Your task to perform on an android device: Go to notification settings Image 0: 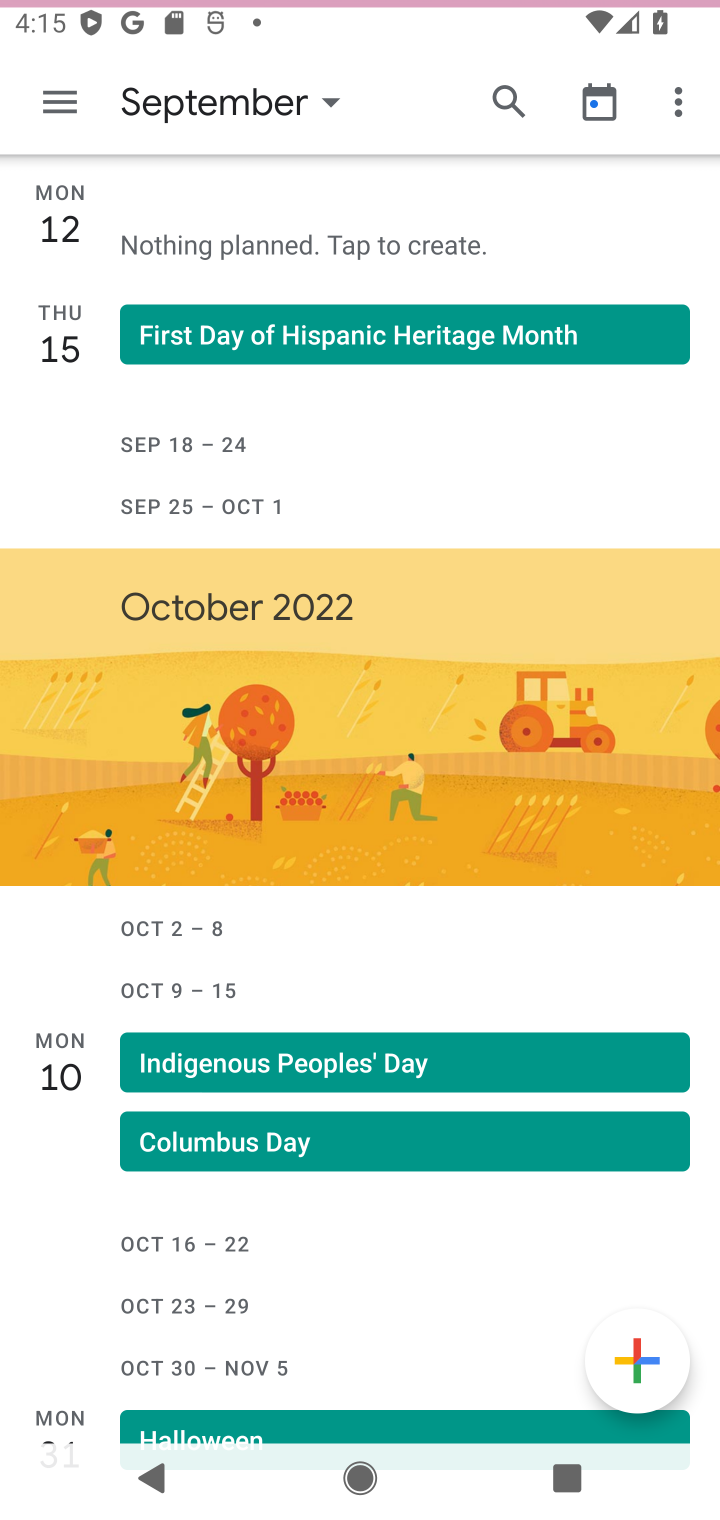
Step 0: press home button
Your task to perform on an android device: Go to notification settings Image 1: 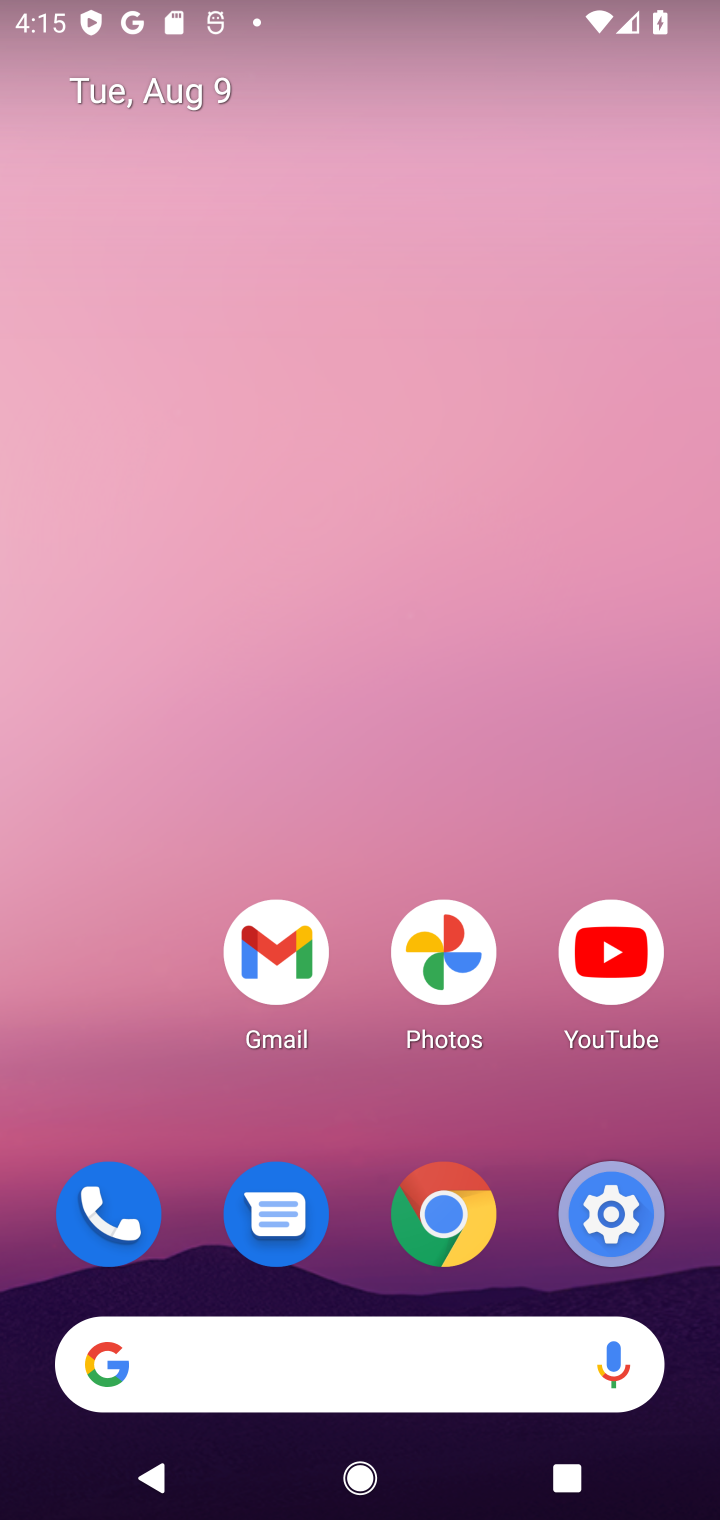
Step 1: drag from (418, 1372) to (198, 460)
Your task to perform on an android device: Go to notification settings Image 2: 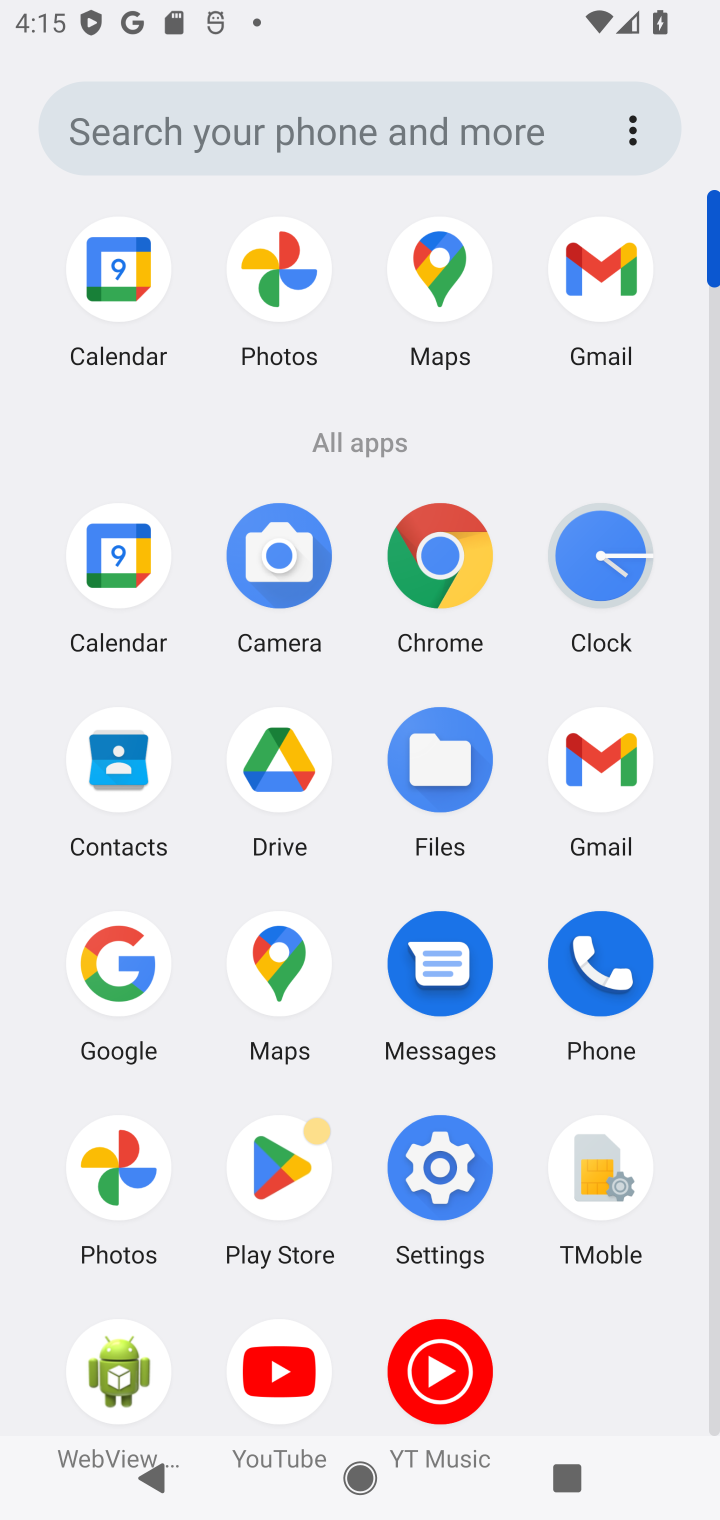
Step 2: click (423, 1183)
Your task to perform on an android device: Go to notification settings Image 3: 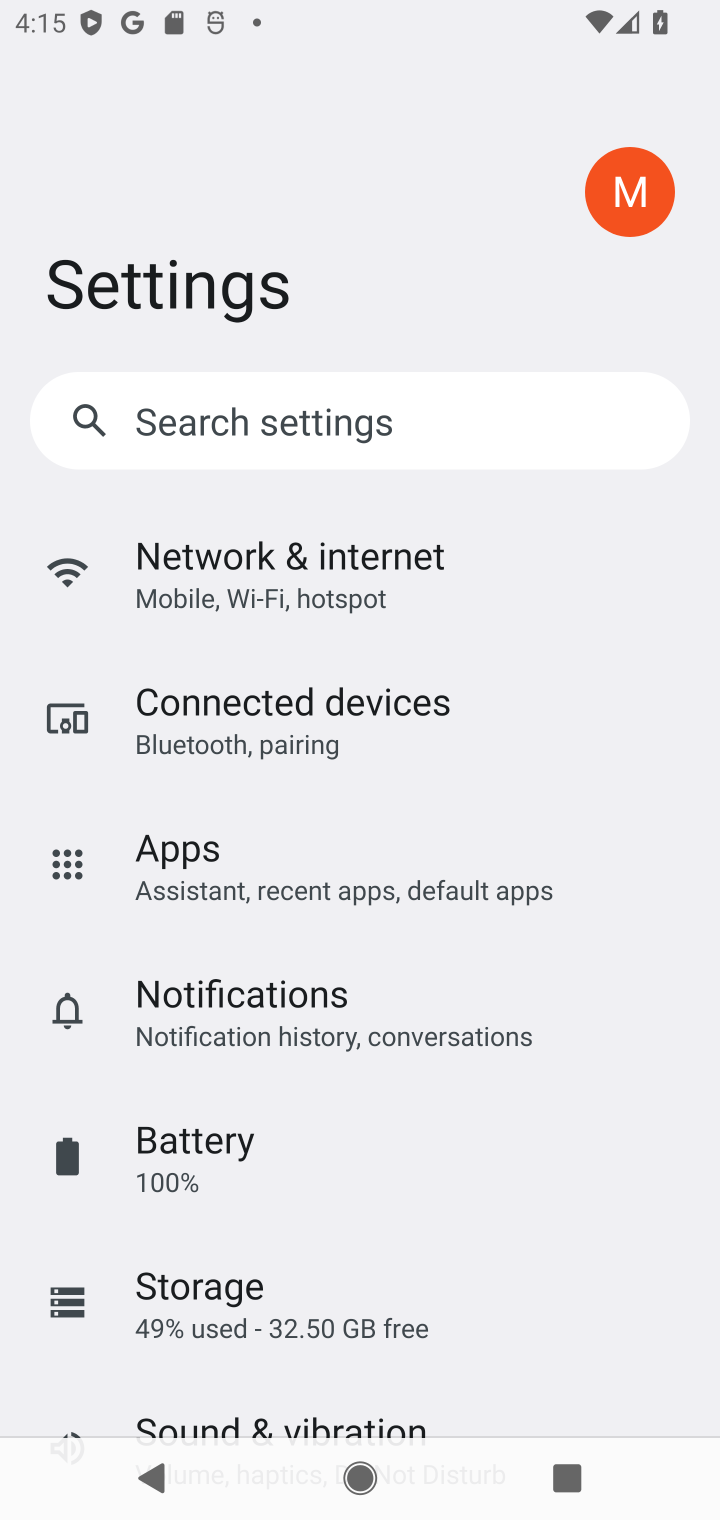
Step 3: click (295, 422)
Your task to perform on an android device: Go to notification settings Image 4: 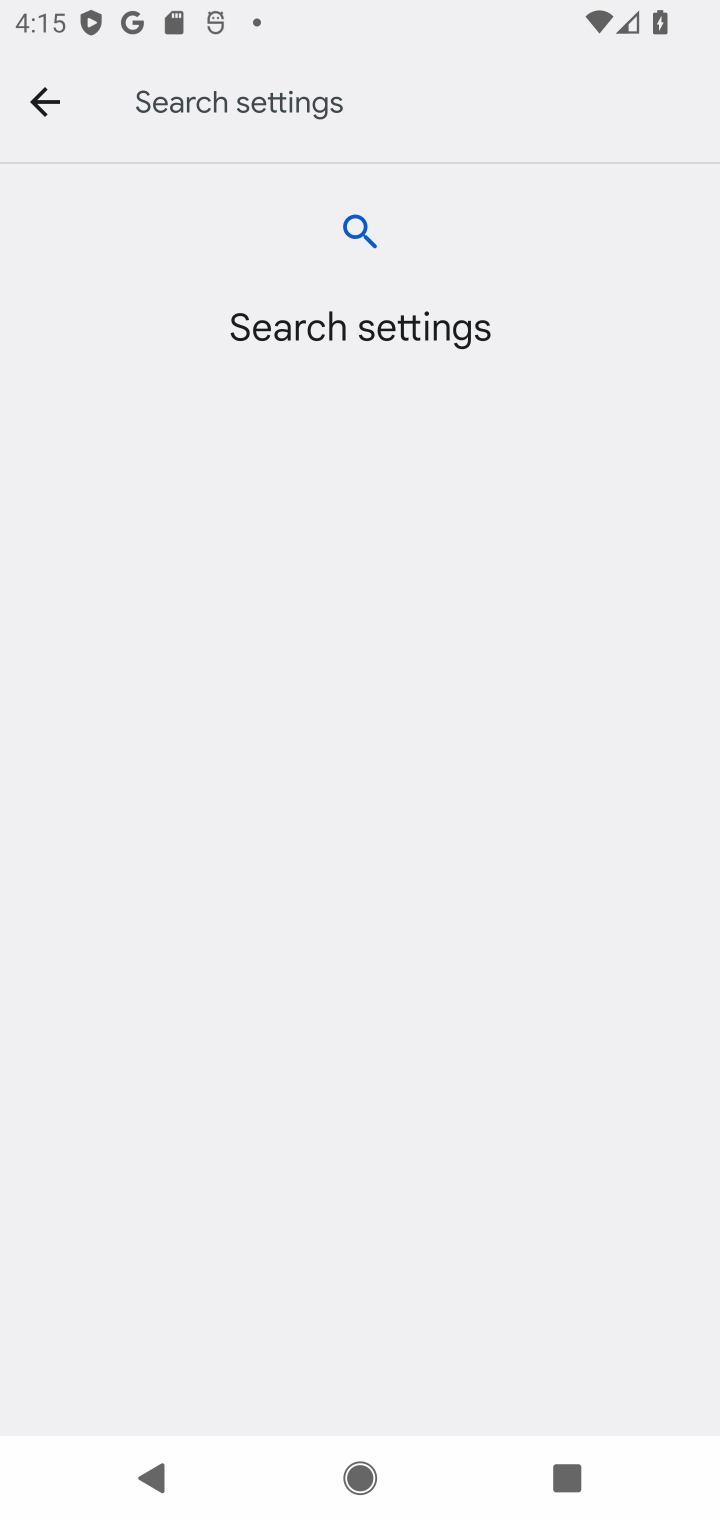
Step 4: click (188, 86)
Your task to perform on an android device: Go to notification settings Image 5: 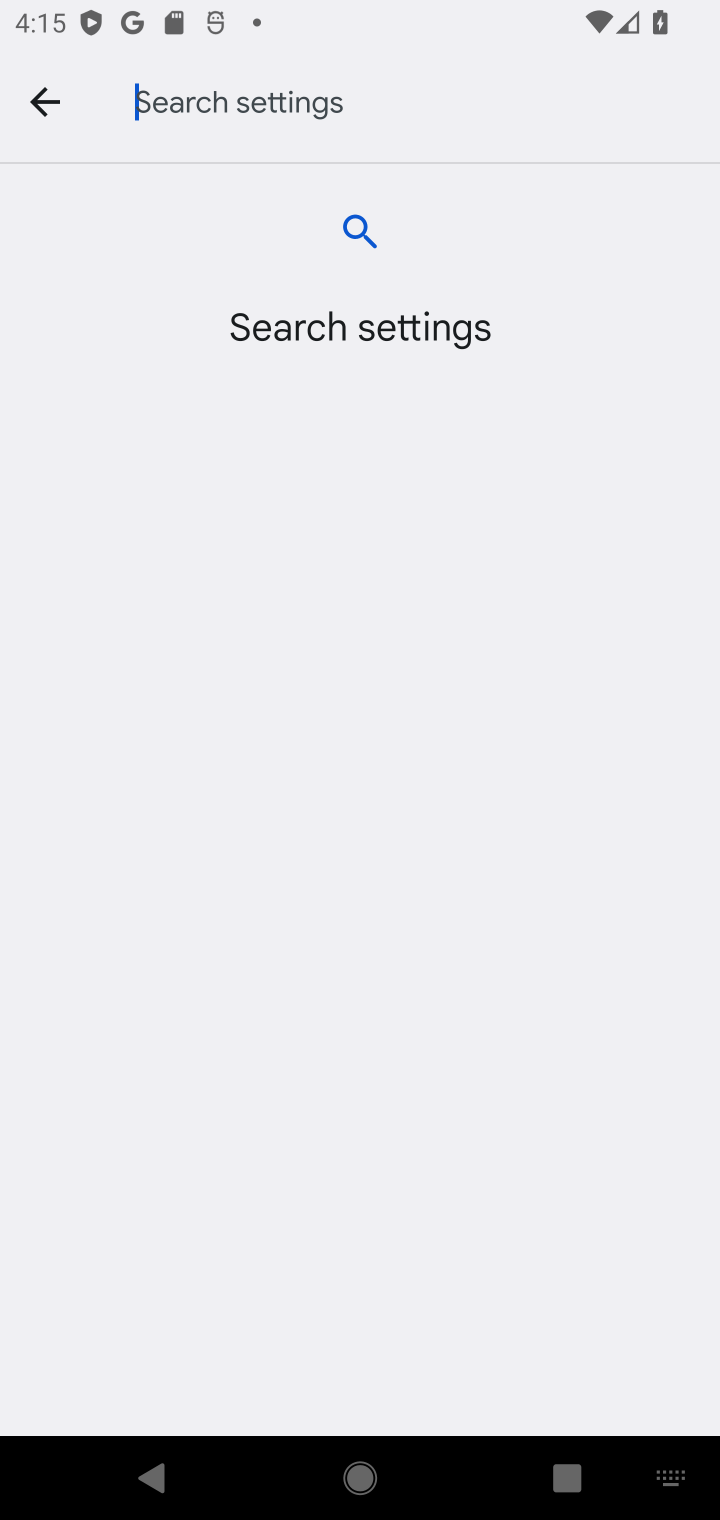
Step 5: click (671, 1480)
Your task to perform on an android device: Go to notification settings Image 6: 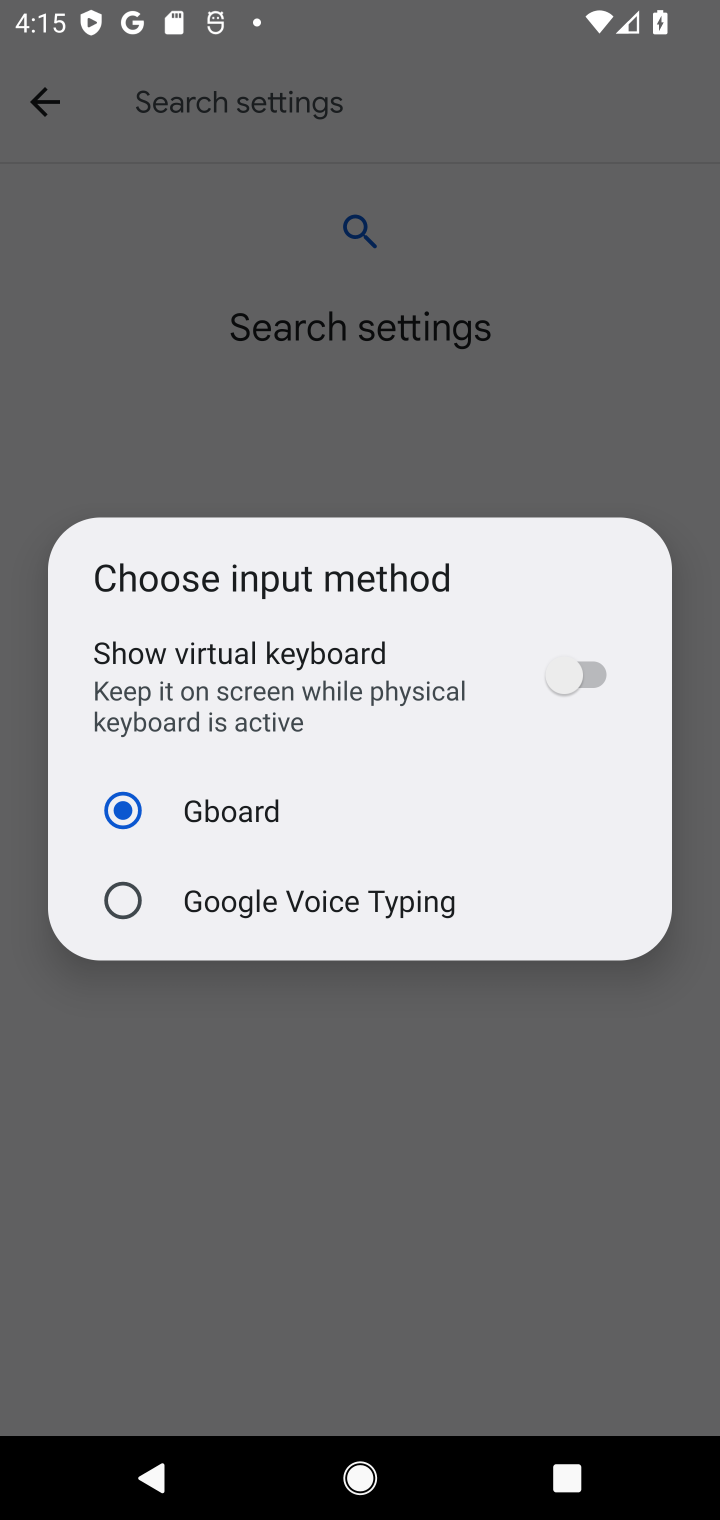
Step 6: click (590, 666)
Your task to perform on an android device: Go to notification settings Image 7: 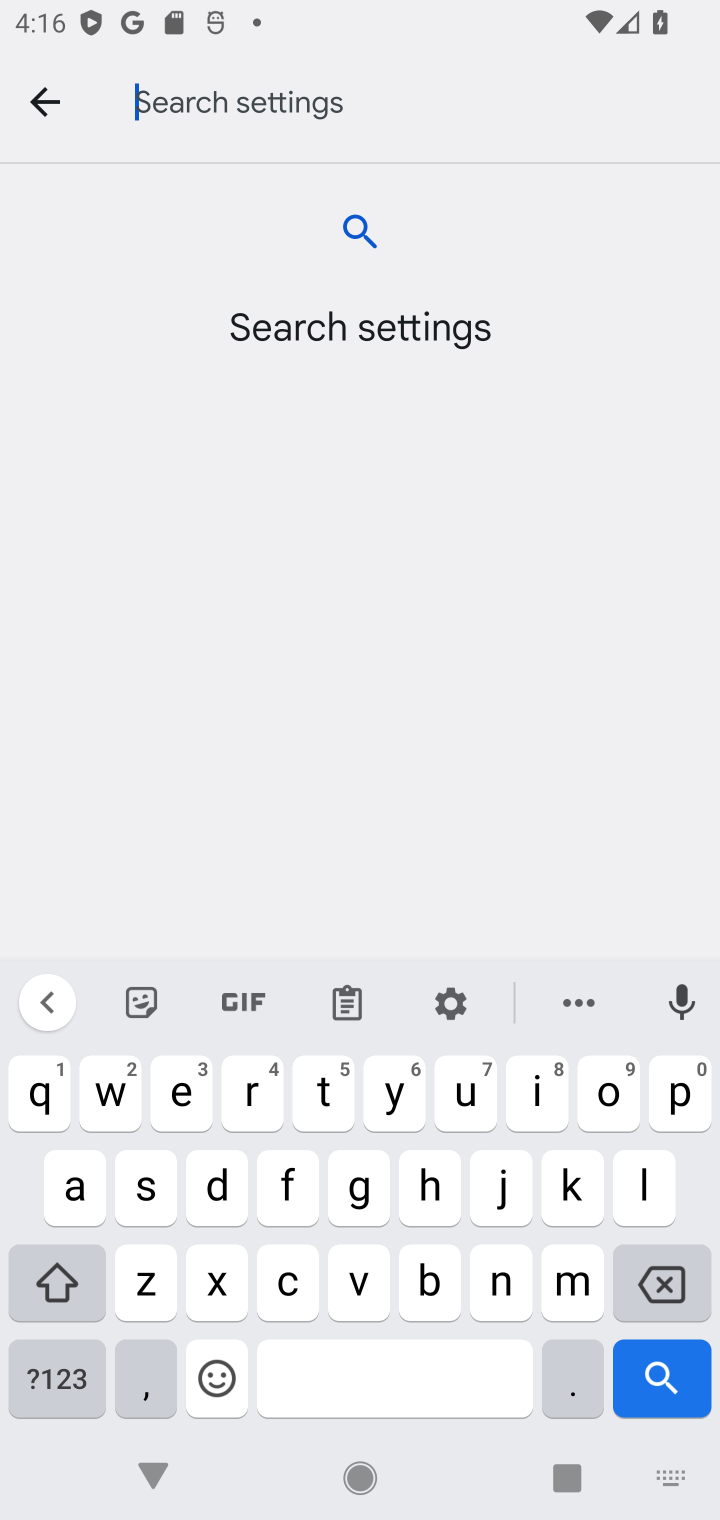
Step 7: click (500, 1274)
Your task to perform on an android device: Go to notification settings Image 8: 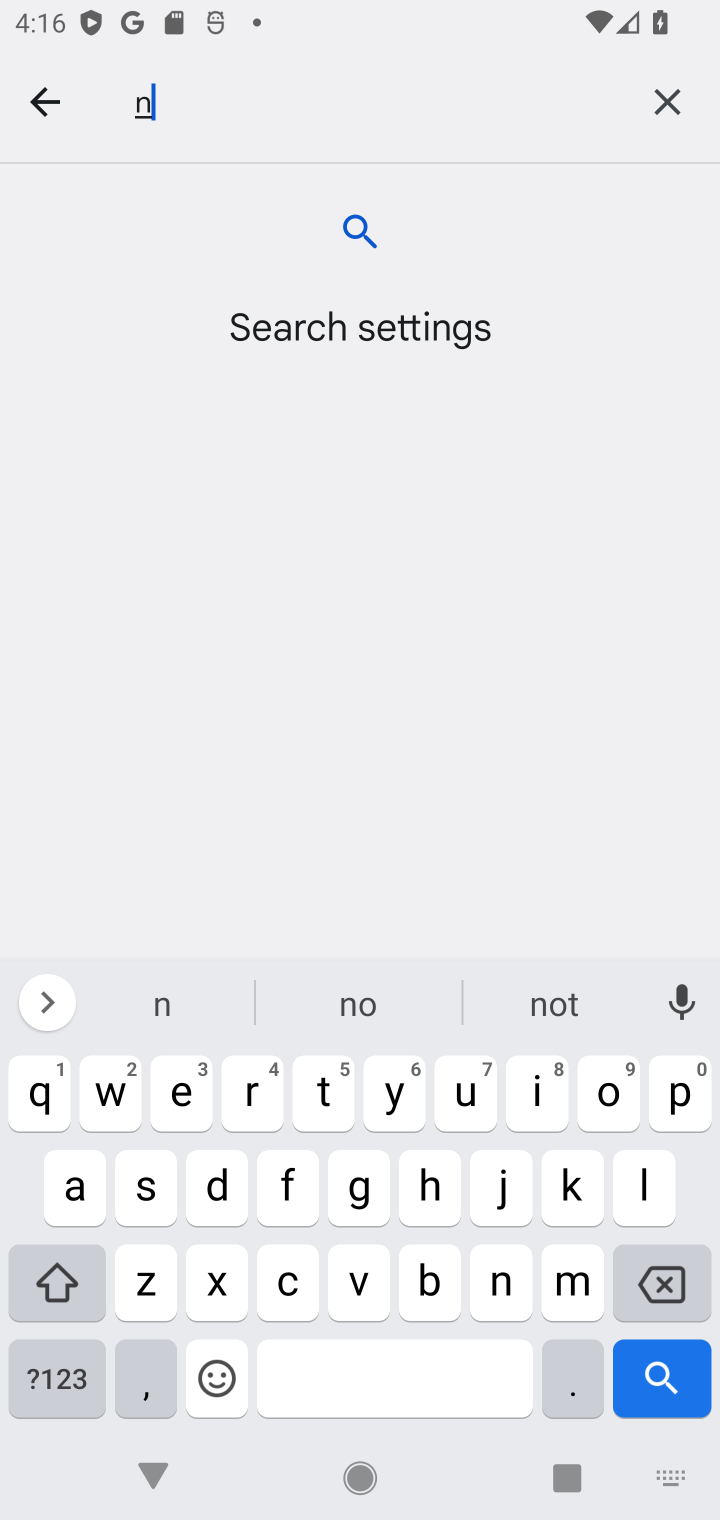
Step 8: click (608, 1103)
Your task to perform on an android device: Go to notification settings Image 9: 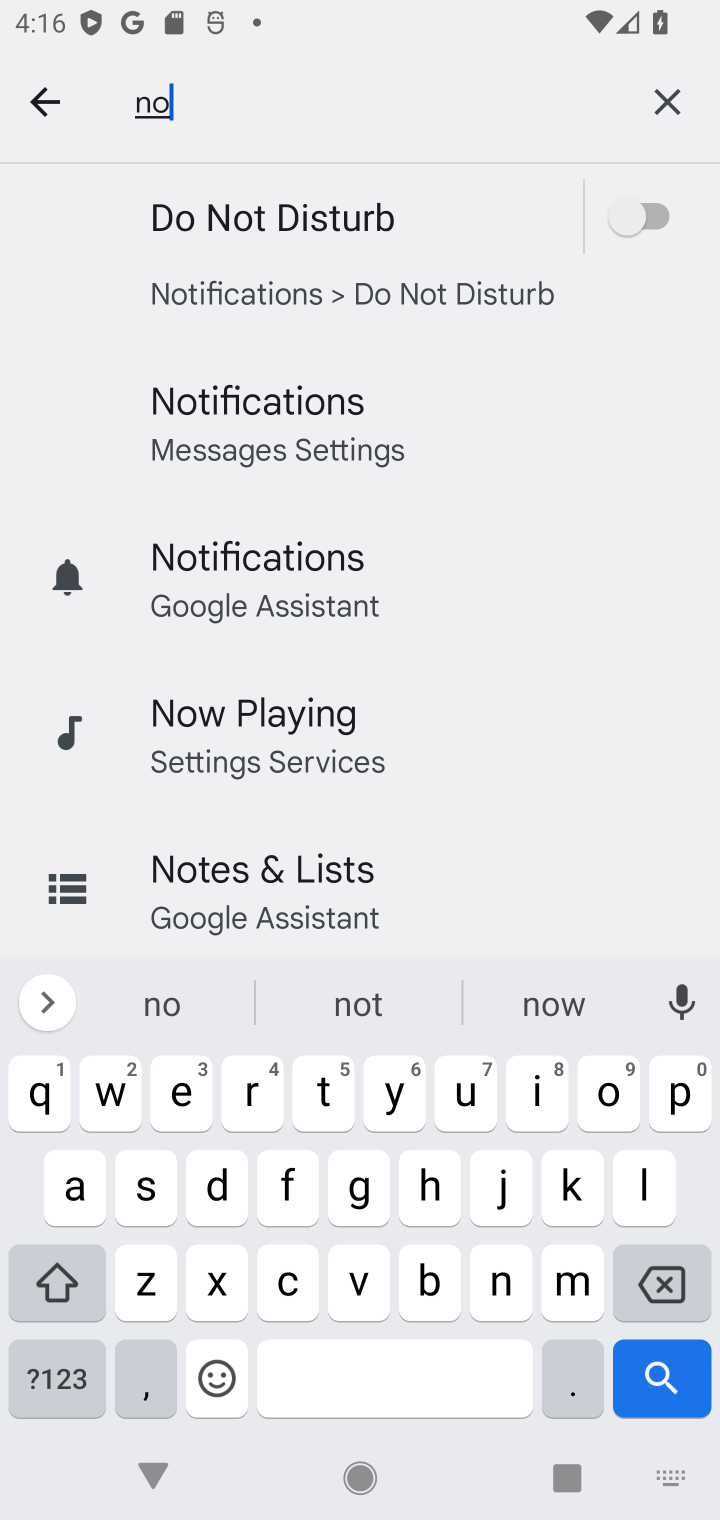
Step 9: click (296, 406)
Your task to perform on an android device: Go to notification settings Image 10: 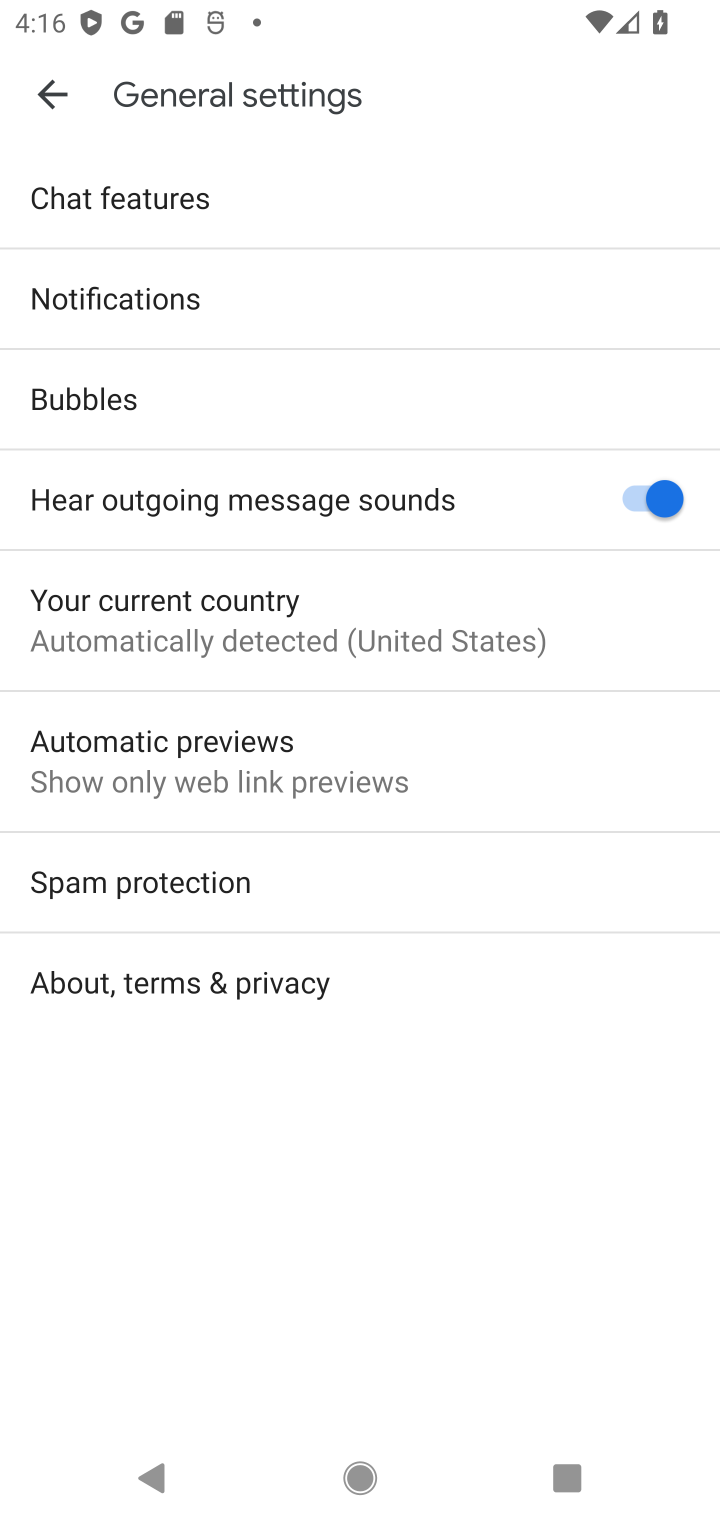
Step 10: click (164, 311)
Your task to perform on an android device: Go to notification settings Image 11: 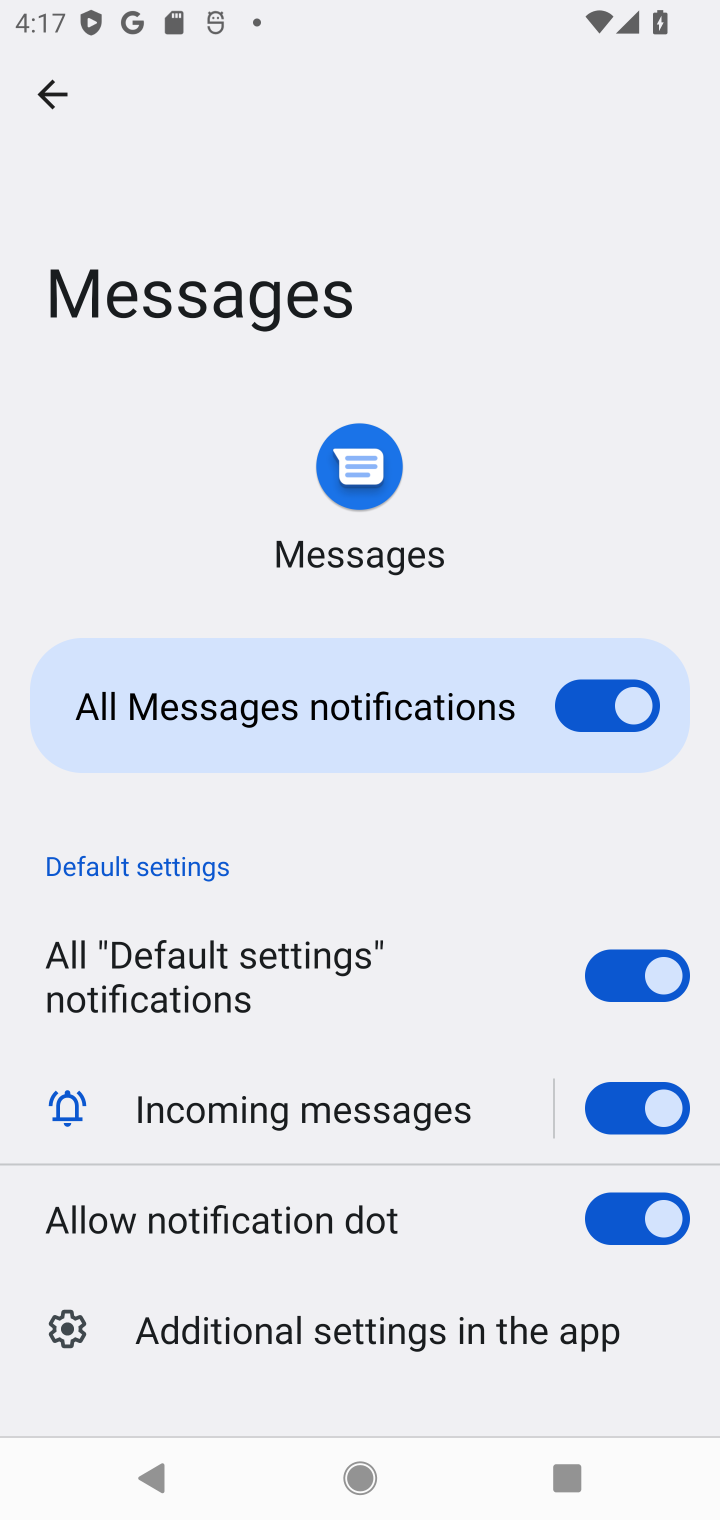
Step 11: task complete